Your task to perform on an android device: turn on airplane mode Image 0: 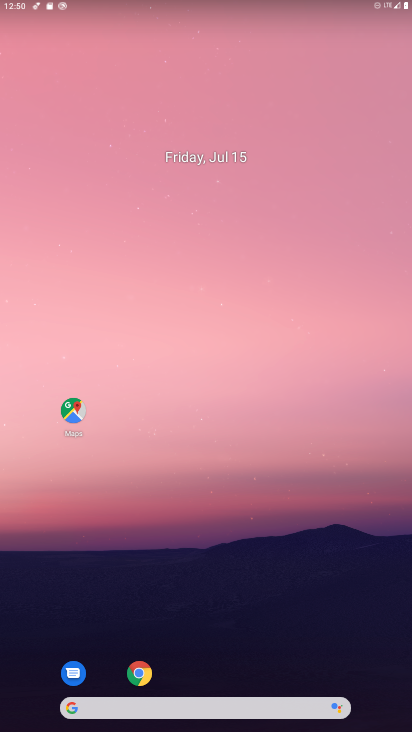
Step 0: drag from (343, 543) to (254, 1)
Your task to perform on an android device: turn on airplane mode Image 1: 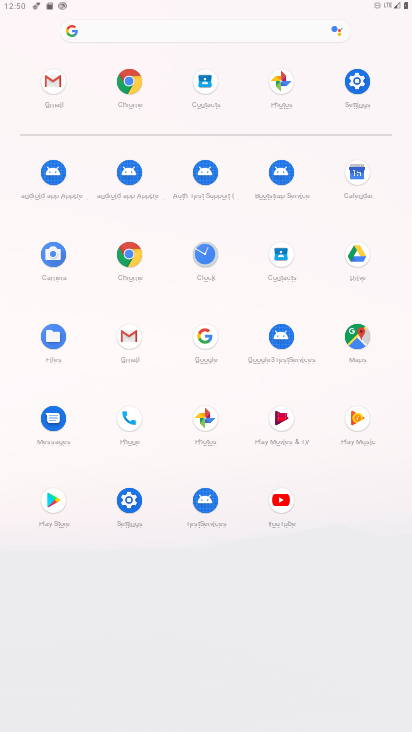
Step 1: click (363, 76)
Your task to perform on an android device: turn on airplane mode Image 2: 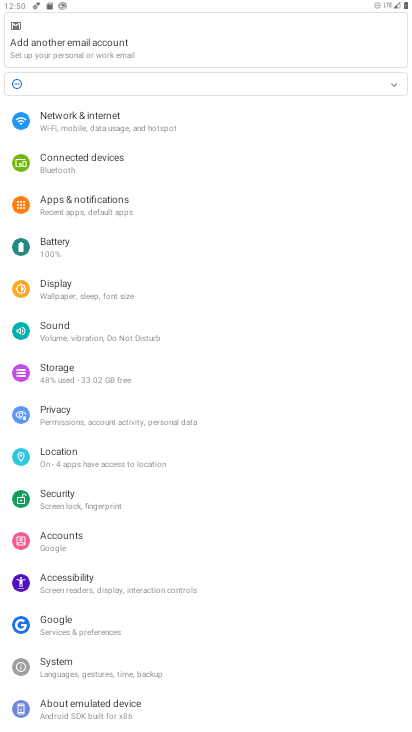
Step 2: click (113, 124)
Your task to perform on an android device: turn on airplane mode Image 3: 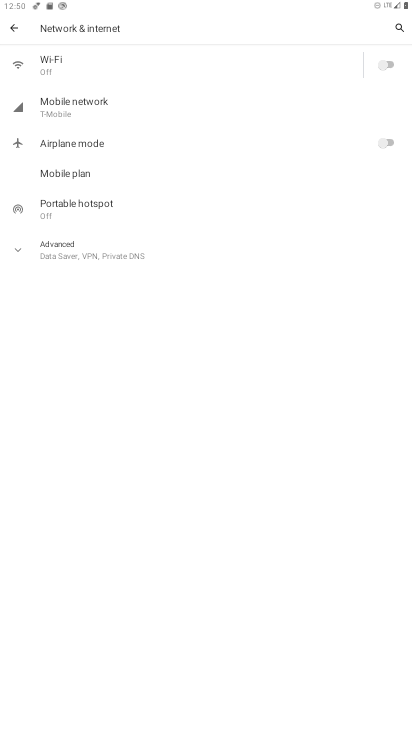
Step 3: click (393, 137)
Your task to perform on an android device: turn on airplane mode Image 4: 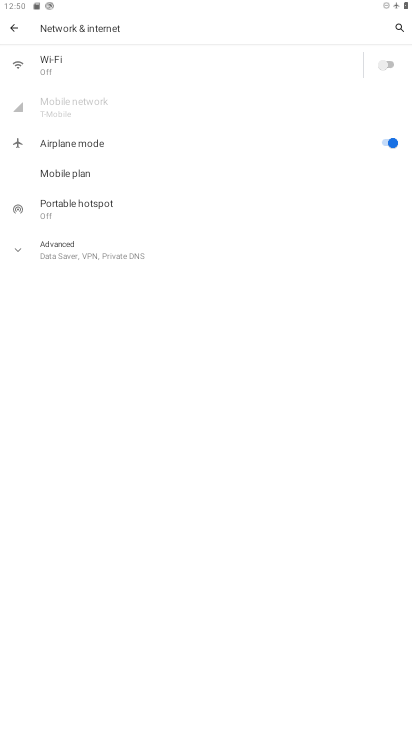
Step 4: task complete